Your task to perform on an android device: Open accessibility settings Image 0: 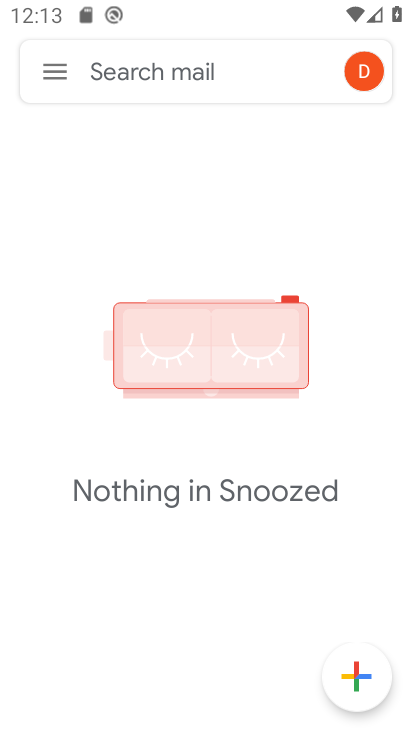
Step 0: press home button
Your task to perform on an android device: Open accessibility settings Image 1: 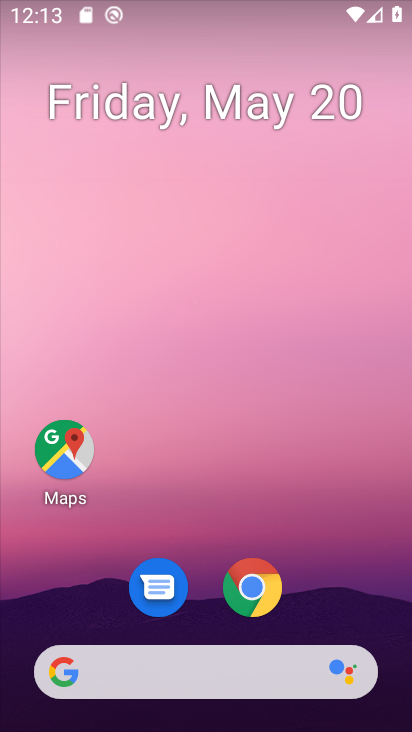
Step 1: drag from (341, 591) to (341, 141)
Your task to perform on an android device: Open accessibility settings Image 2: 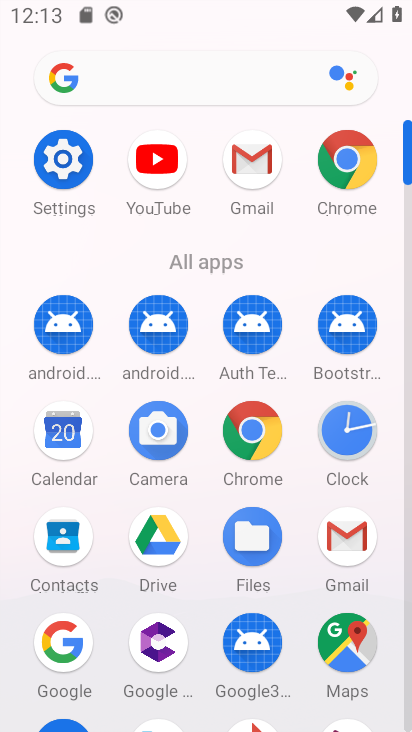
Step 2: click (61, 167)
Your task to perform on an android device: Open accessibility settings Image 3: 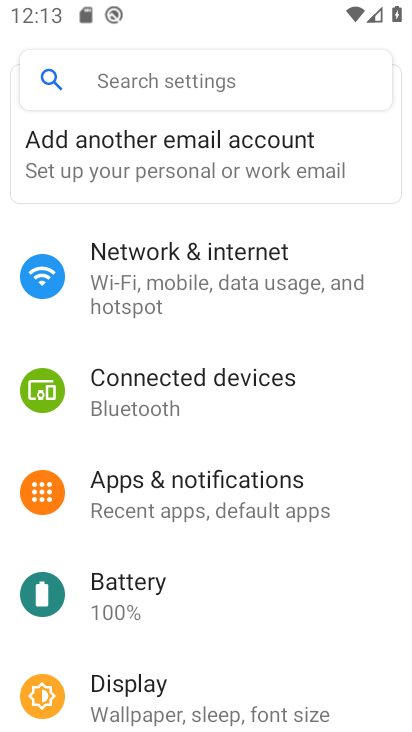
Step 3: drag from (333, 614) to (352, 418)
Your task to perform on an android device: Open accessibility settings Image 4: 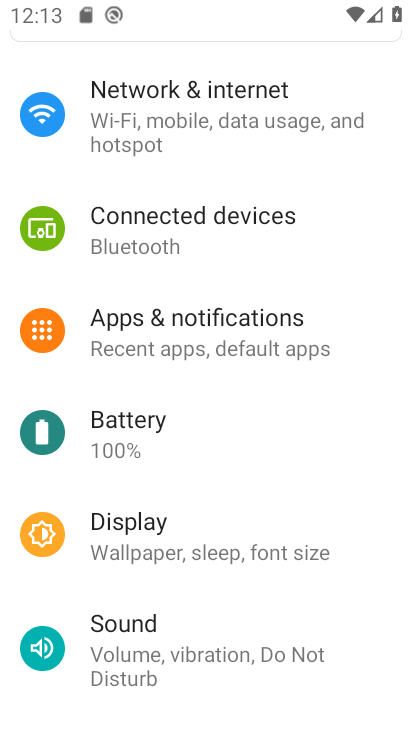
Step 4: drag from (361, 620) to (364, 447)
Your task to perform on an android device: Open accessibility settings Image 5: 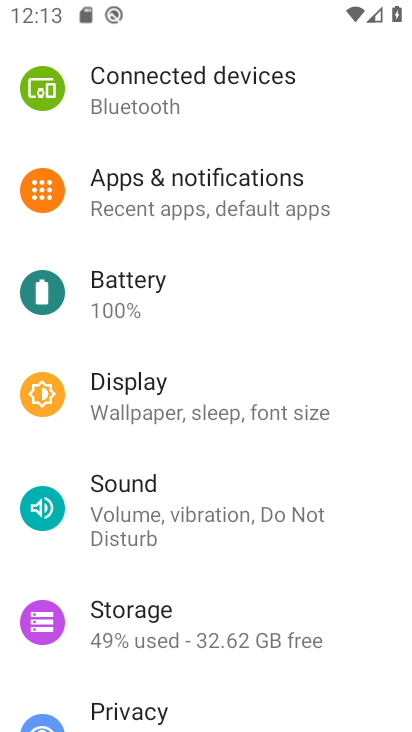
Step 5: drag from (356, 654) to (356, 468)
Your task to perform on an android device: Open accessibility settings Image 6: 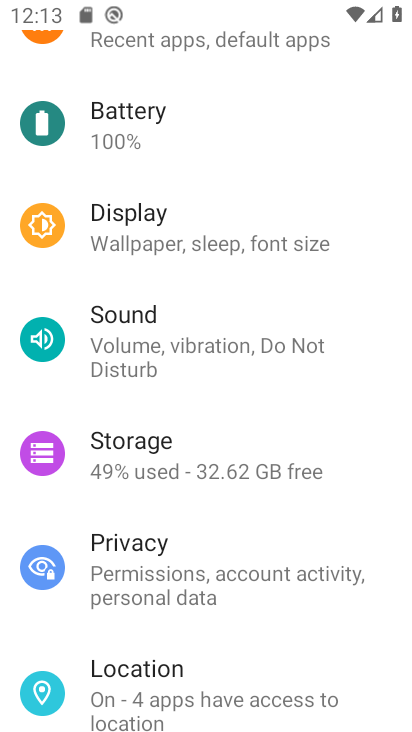
Step 6: drag from (357, 655) to (358, 549)
Your task to perform on an android device: Open accessibility settings Image 7: 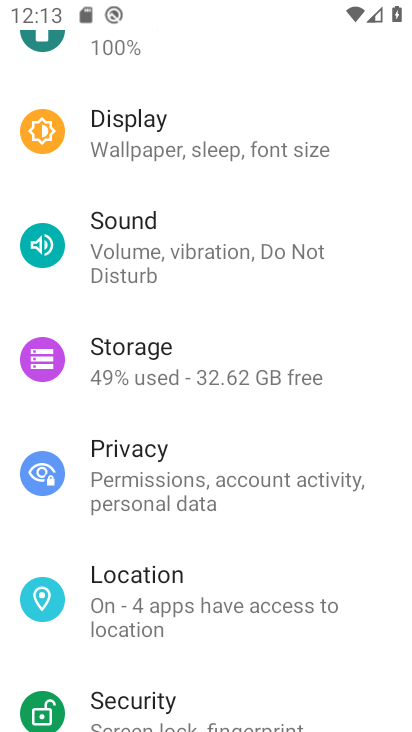
Step 7: drag from (356, 670) to (372, 562)
Your task to perform on an android device: Open accessibility settings Image 8: 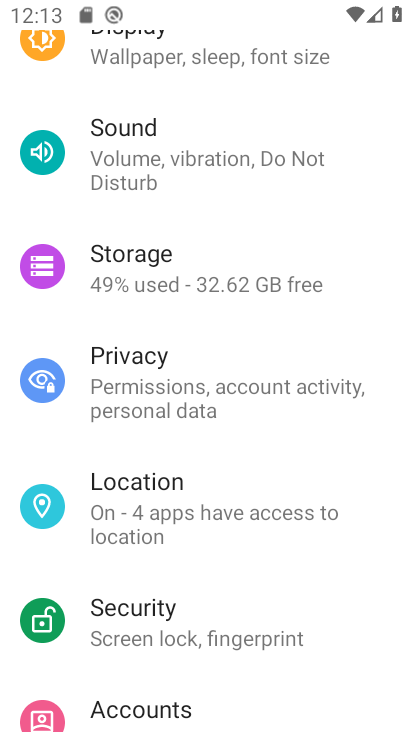
Step 8: drag from (361, 650) to (366, 523)
Your task to perform on an android device: Open accessibility settings Image 9: 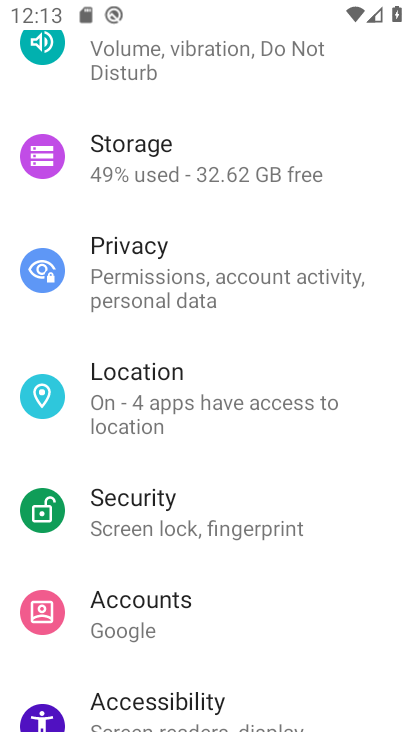
Step 9: drag from (365, 666) to (371, 545)
Your task to perform on an android device: Open accessibility settings Image 10: 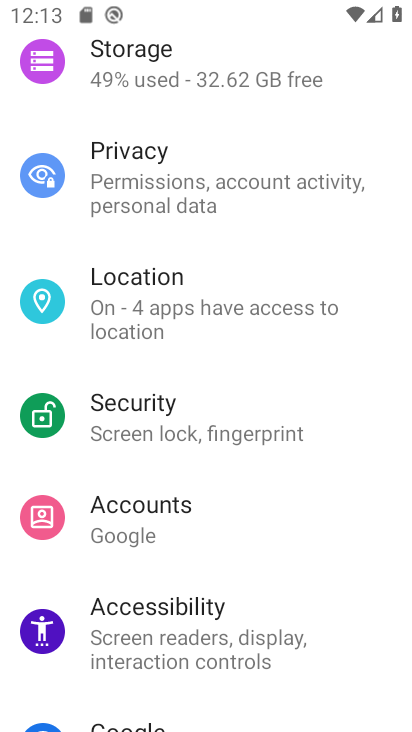
Step 10: drag from (363, 642) to (367, 552)
Your task to perform on an android device: Open accessibility settings Image 11: 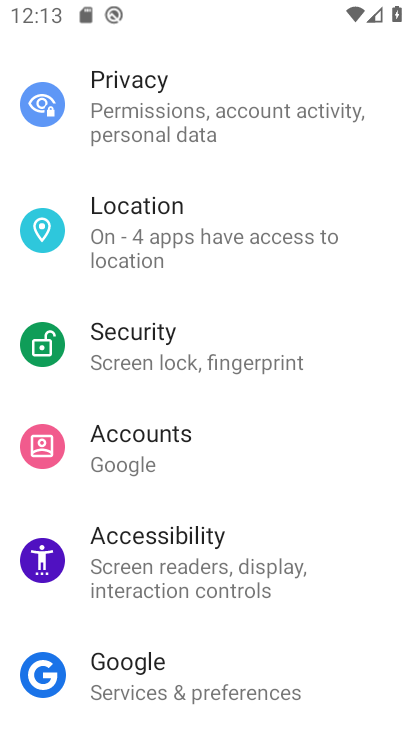
Step 11: drag from (347, 641) to (364, 506)
Your task to perform on an android device: Open accessibility settings Image 12: 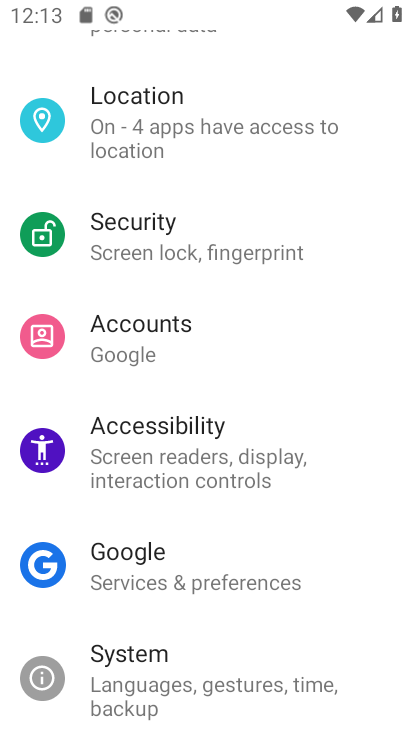
Step 12: drag from (367, 650) to (367, 517)
Your task to perform on an android device: Open accessibility settings Image 13: 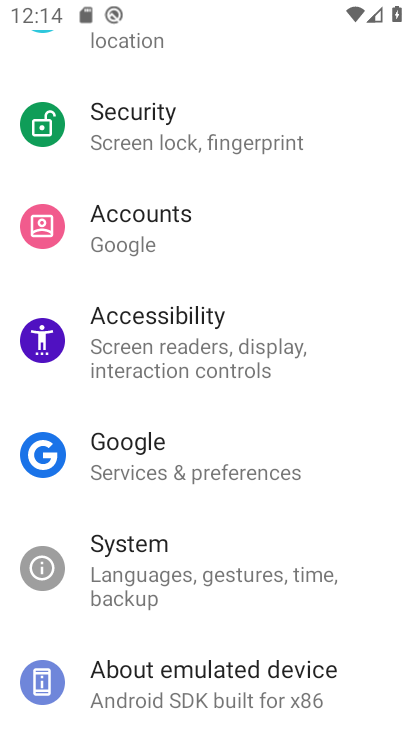
Step 13: drag from (369, 658) to (375, 533)
Your task to perform on an android device: Open accessibility settings Image 14: 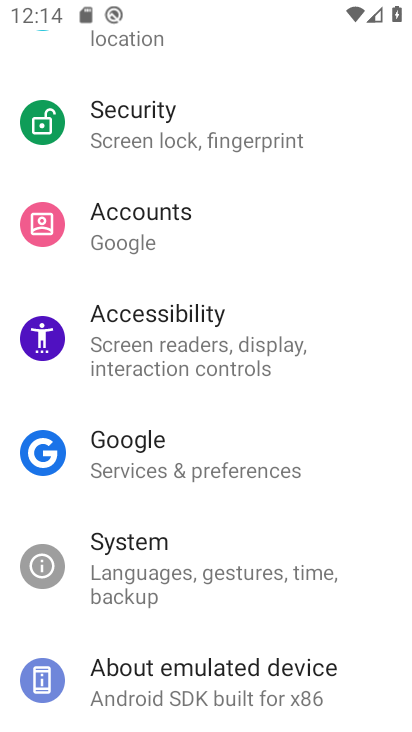
Step 14: drag from (376, 433) to (359, 558)
Your task to perform on an android device: Open accessibility settings Image 15: 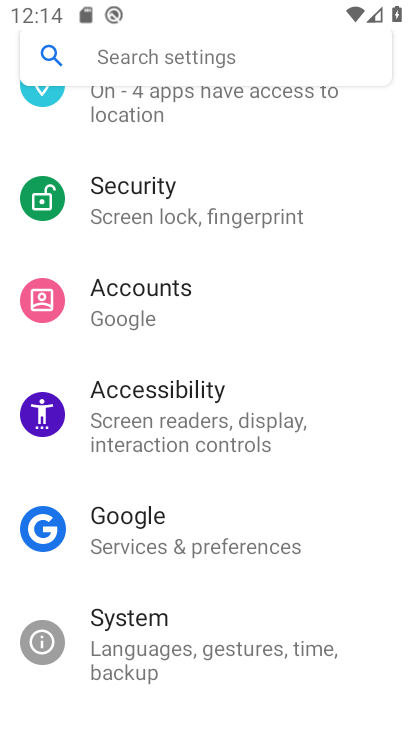
Step 15: click (282, 428)
Your task to perform on an android device: Open accessibility settings Image 16: 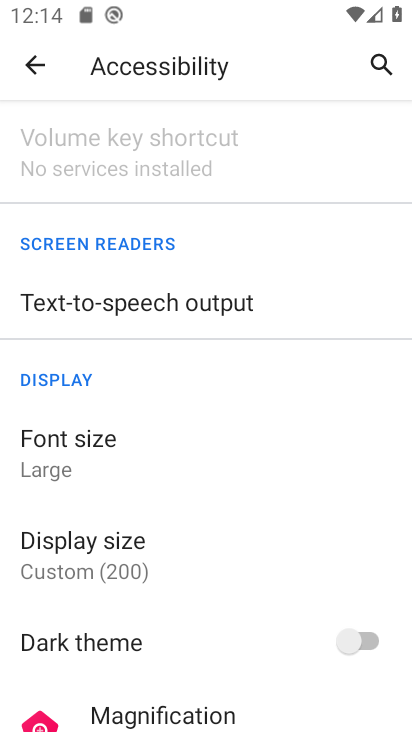
Step 16: task complete